Your task to perform on an android device: find snoozed emails in the gmail app Image 0: 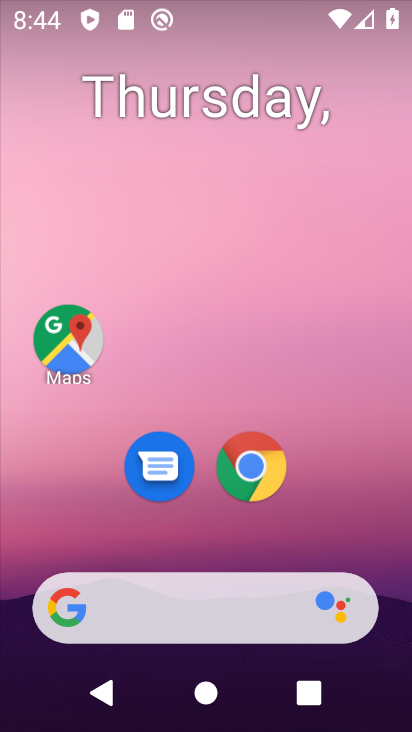
Step 0: drag from (201, 553) to (307, 131)
Your task to perform on an android device: find snoozed emails in the gmail app Image 1: 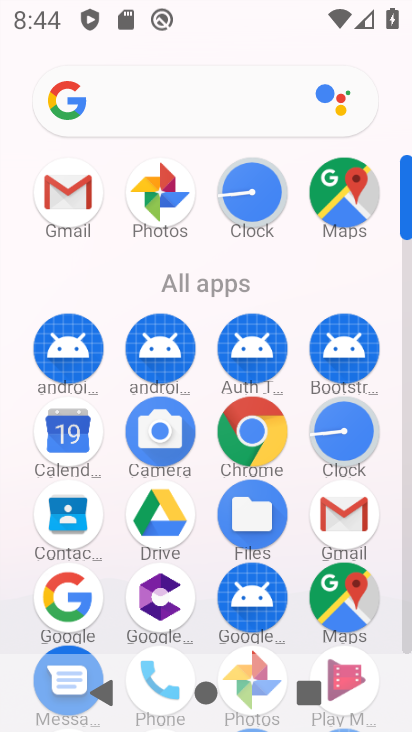
Step 1: click (70, 205)
Your task to perform on an android device: find snoozed emails in the gmail app Image 2: 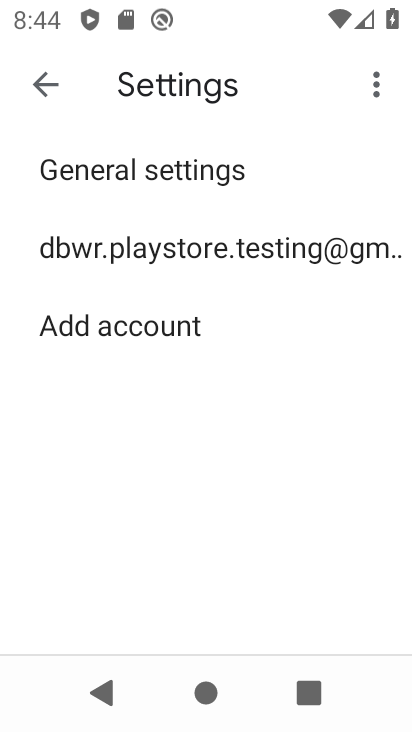
Step 2: click (47, 81)
Your task to perform on an android device: find snoozed emails in the gmail app Image 3: 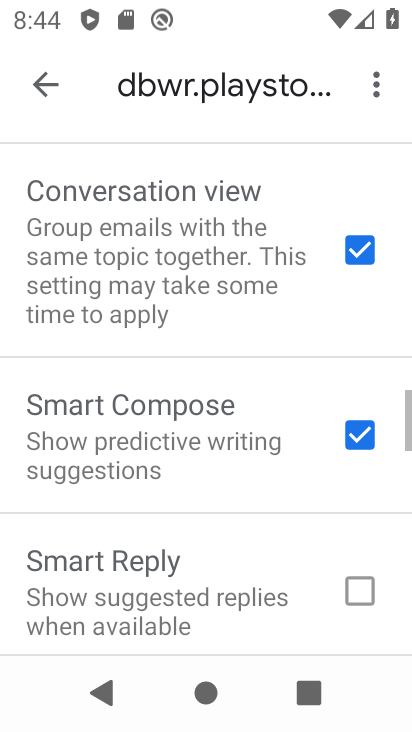
Step 3: click (47, 83)
Your task to perform on an android device: find snoozed emails in the gmail app Image 4: 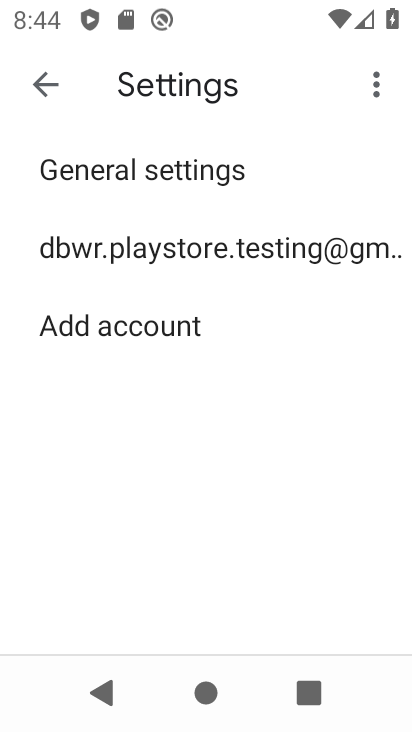
Step 4: click (47, 83)
Your task to perform on an android device: find snoozed emails in the gmail app Image 5: 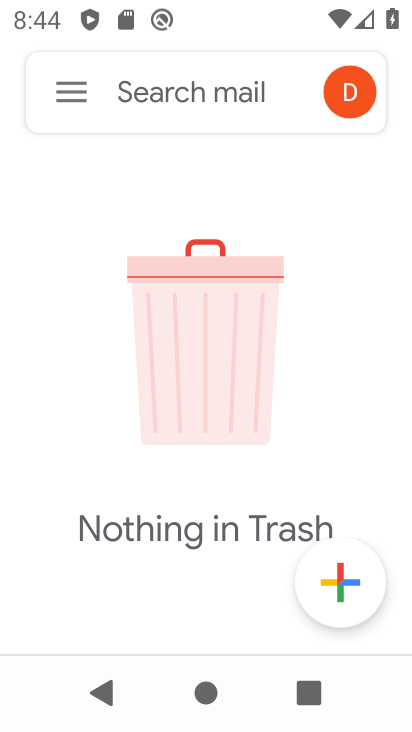
Step 5: click (70, 89)
Your task to perform on an android device: find snoozed emails in the gmail app Image 6: 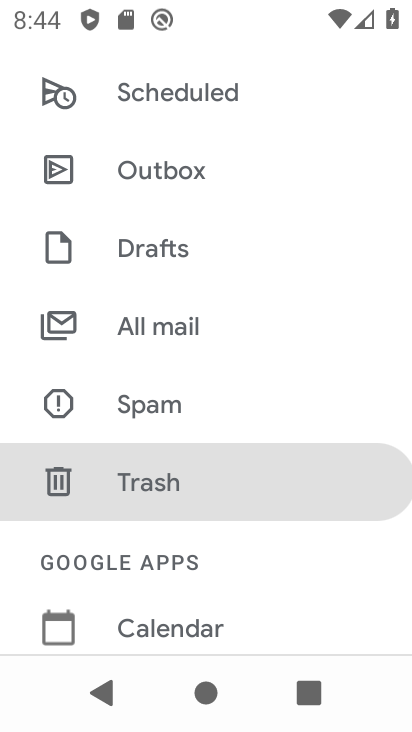
Step 6: drag from (291, 184) to (263, 527)
Your task to perform on an android device: find snoozed emails in the gmail app Image 7: 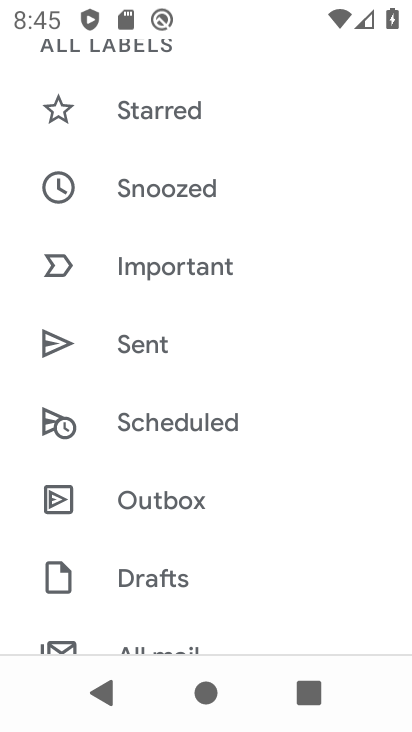
Step 7: click (173, 184)
Your task to perform on an android device: find snoozed emails in the gmail app Image 8: 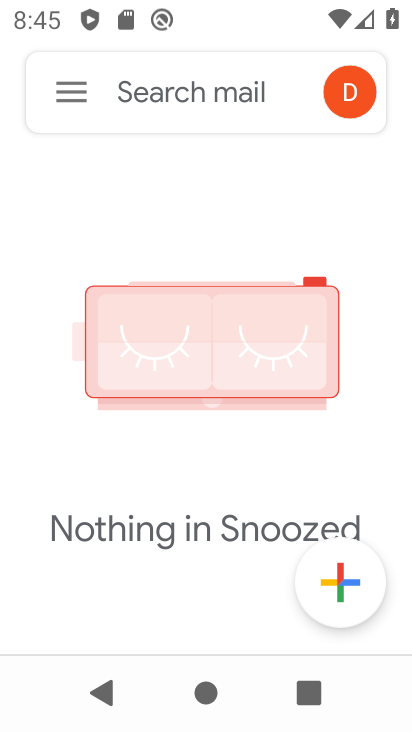
Step 8: task complete